Your task to perform on an android device: Add razer thresher to the cart on newegg Image 0: 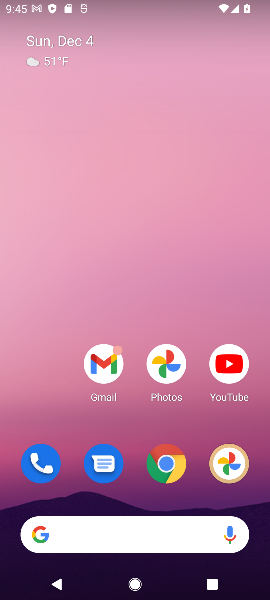
Step 0: click (158, 529)
Your task to perform on an android device: Add razer thresher to the cart on newegg Image 1: 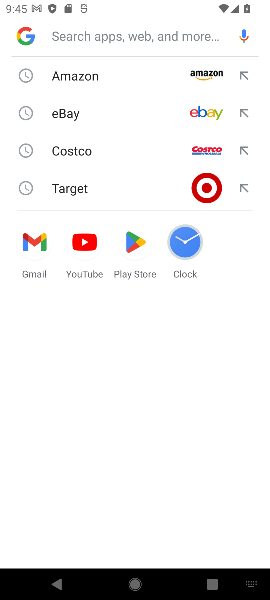
Step 1: type "newegg"
Your task to perform on an android device: Add razer thresher to the cart on newegg Image 2: 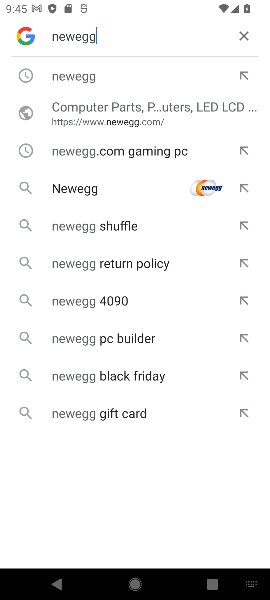
Step 2: click (71, 134)
Your task to perform on an android device: Add razer thresher to the cart on newegg Image 3: 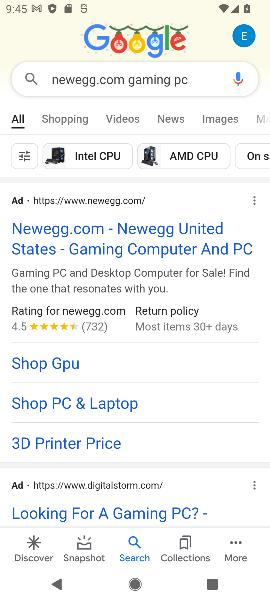
Step 3: click (101, 251)
Your task to perform on an android device: Add razer thresher to the cart on newegg Image 4: 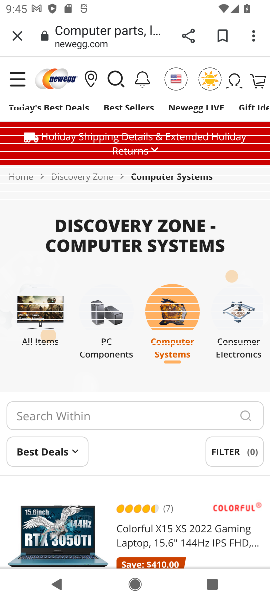
Step 4: task complete